Your task to perform on an android device: turn off improve location accuracy Image 0: 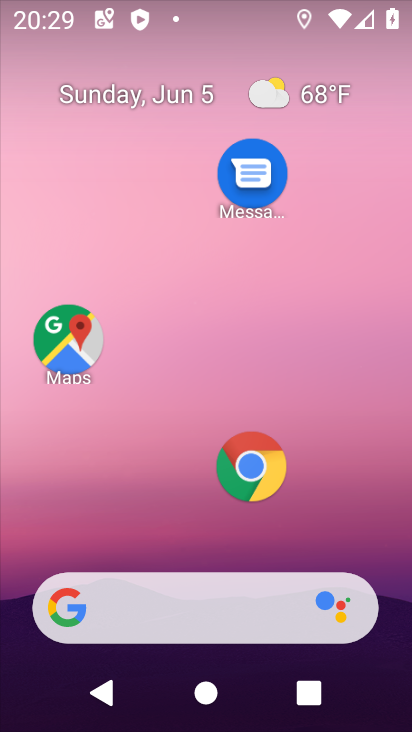
Step 0: drag from (177, 499) to (299, 116)
Your task to perform on an android device: turn off improve location accuracy Image 1: 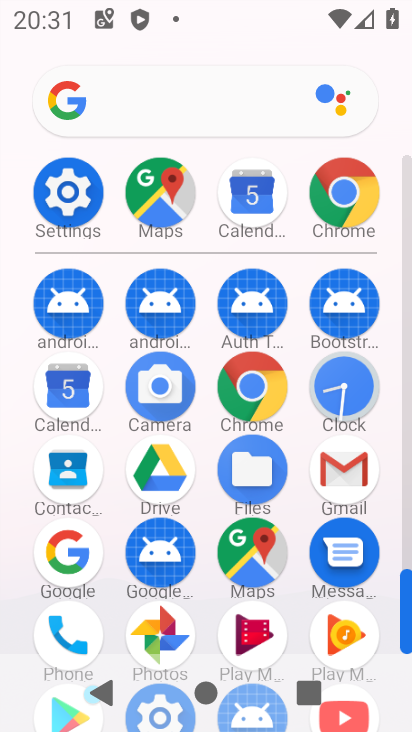
Step 1: click (57, 199)
Your task to perform on an android device: turn off improve location accuracy Image 2: 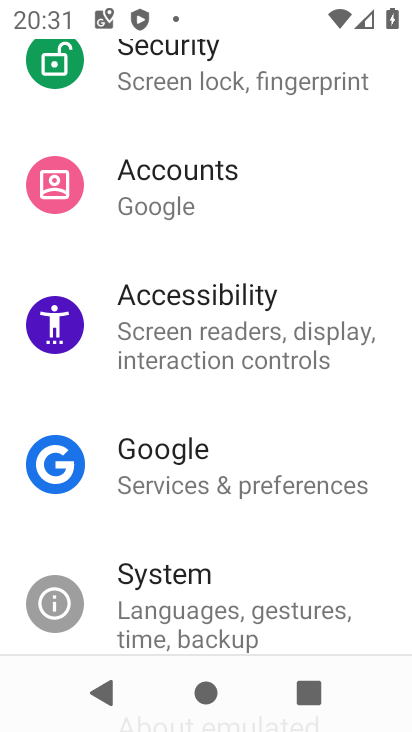
Step 2: drag from (285, 223) to (330, 727)
Your task to perform on an android device: turn off improve location accuracy Image 3: 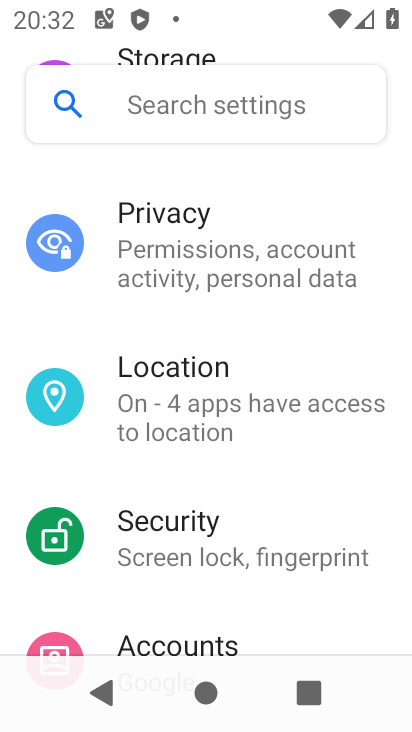
Step 3: drag from (192, 588) to (308, 125)
Your task to perform on an android device: turn off improve location accuracy Image 4: 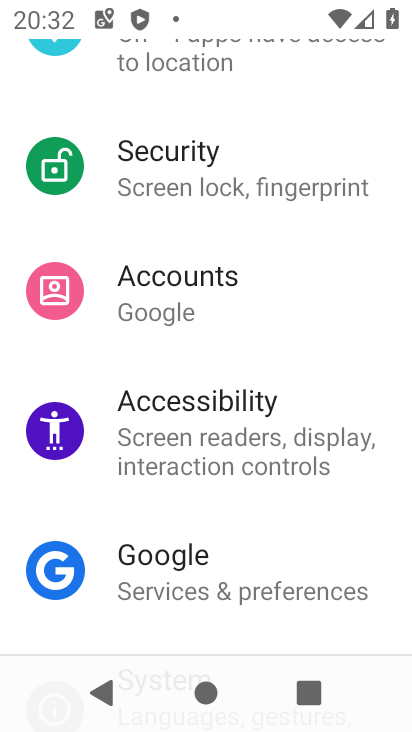
Step 4: drag from (224, 250) to (244, 652)
Your task to perform on an android device: turn off improve location accuracy Image 5: 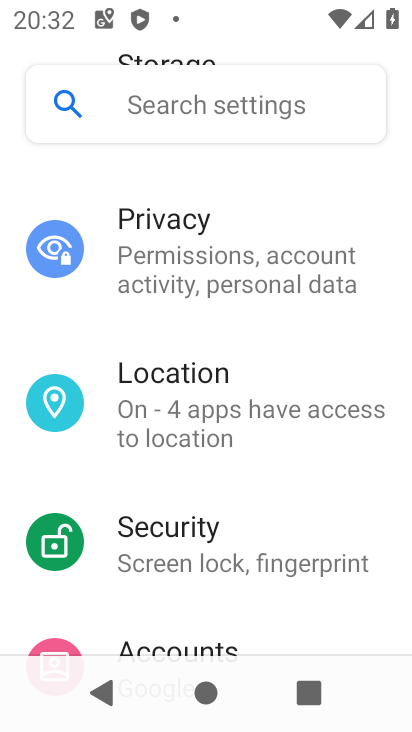
Step 5: click (177, 371)
Your task to perform on an android device: turn off improve location accuracy Image 6: 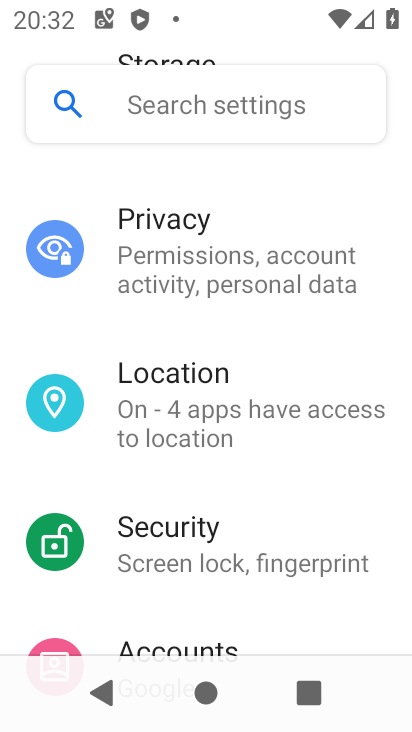
Step 6: click (176, 370)
Your task to perform on an android device: turn off improve location accuracy Image 7: 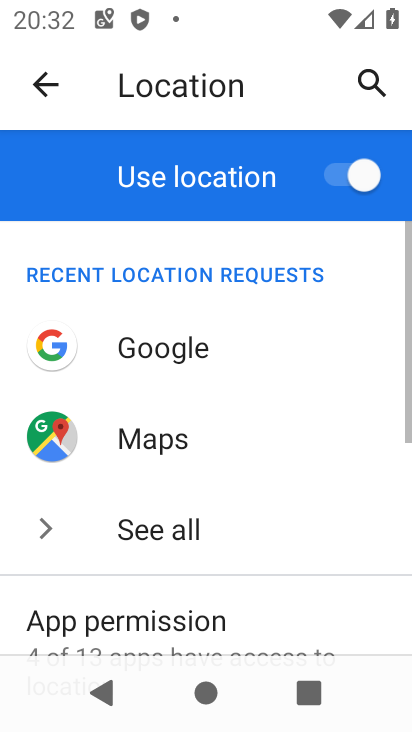
Step 7: drag from (214, 589) to (314, 1)
Your task to perform on an android device: turn off improve location accuracy Image 8: 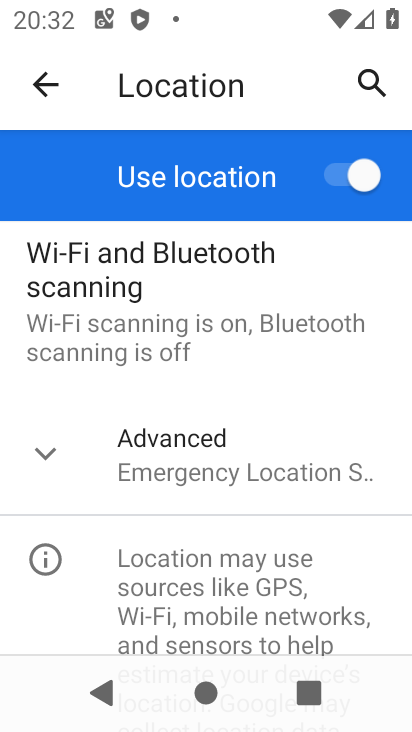
Step 8: click (172, 469)
Your task to perform on an android device: turn off improve location accuracy Image 9: 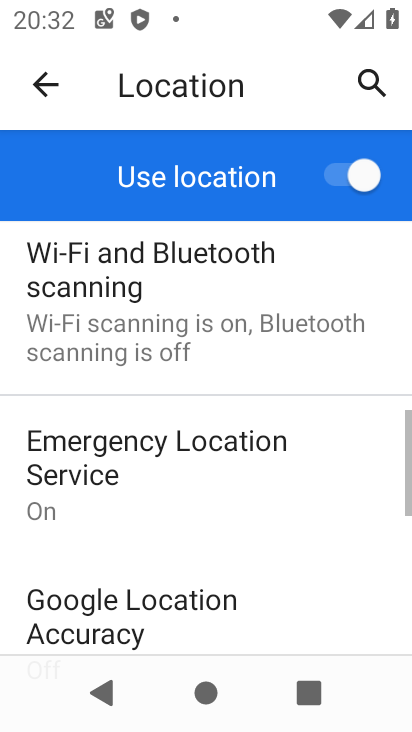
Step 9: drag from (203, 428) to (273, 187)
Your task to perform on an android device: turn off improve location accuracy Image 10: 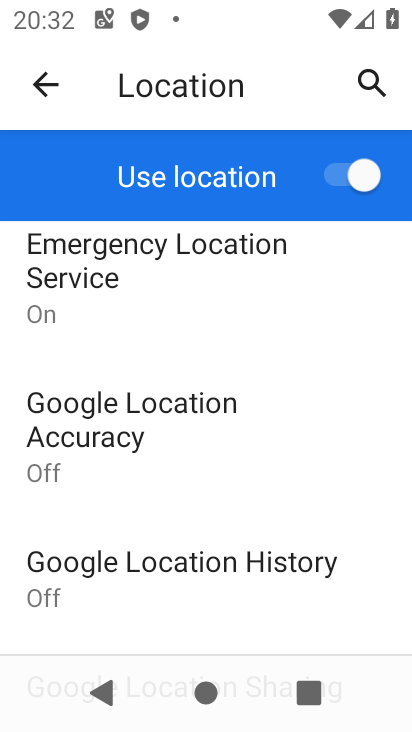
Step 10: click (149, 428)
Your task to perform on an android device: turn off improve location accuracy Image 11: 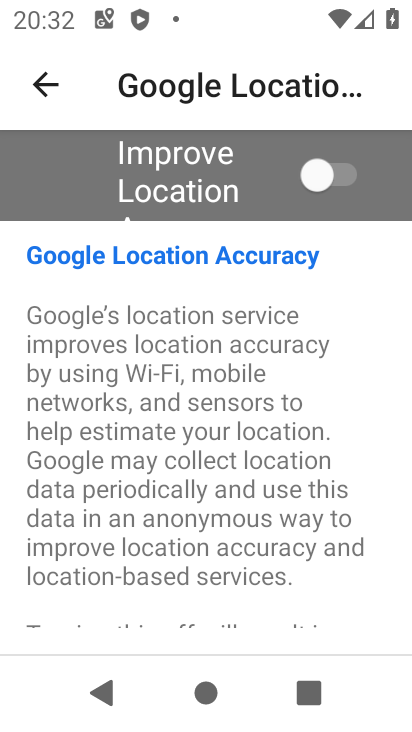
Step 11: task complete